Your task to perform on an android device: check battery use Image 0: 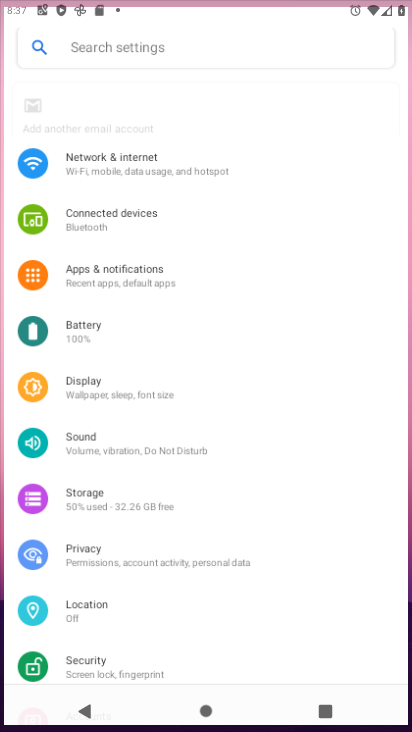
Step 0: drag from (381, 626) to (305, 84)
Your task to perform on an android device: check battery use Image 1: 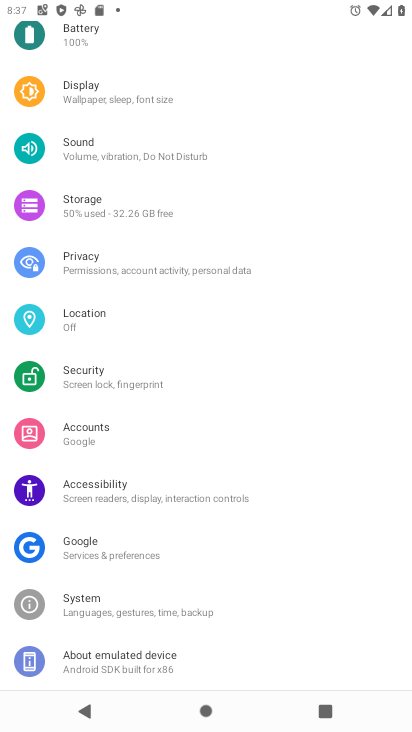
Step 1: press home button
Your task to perform on an android device: check battery use Image 2: 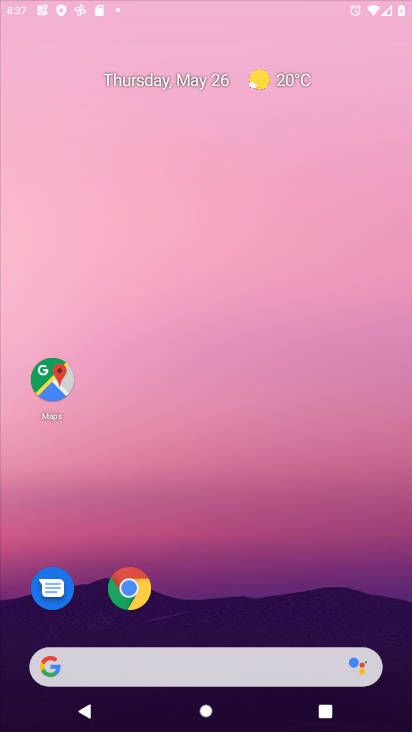
Step 2: drag from (371, 668) to (328, 89)
Your task to perform on an android device: check battery use Image 3: 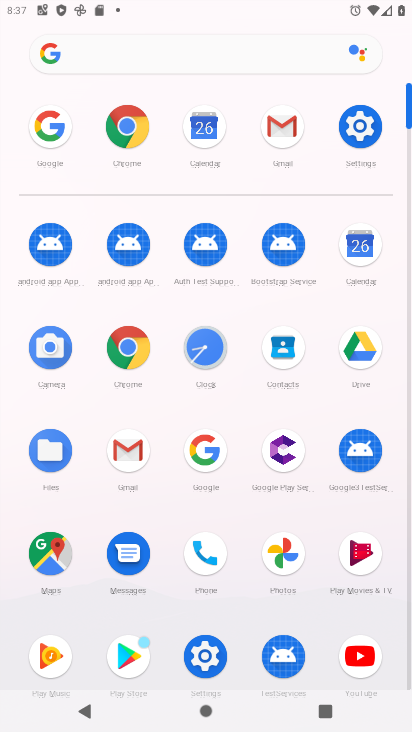
Step 3: click (214, 664)
Your task to perform on an android device: check battery use Image 4: 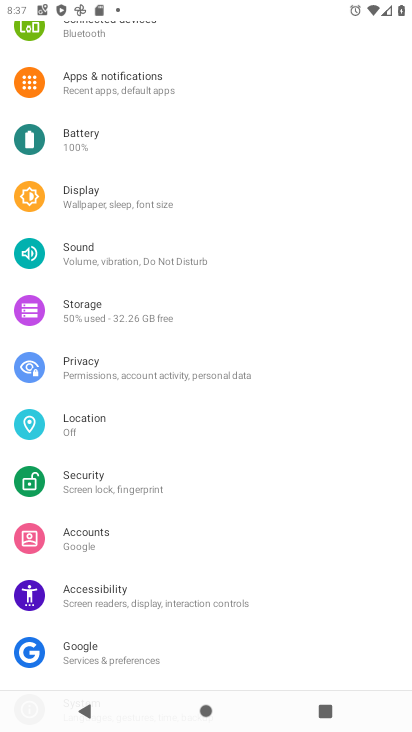
Step 4: drag from (183, 114) to (215, 679)
Your task to perform on an android device: check battery use Image 5: 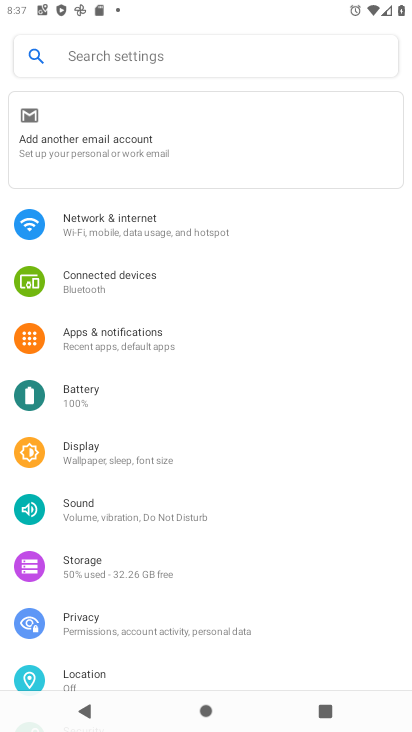
Step 5: click (84, 392)
Your task to perform on an android device: check battery use Image 6: 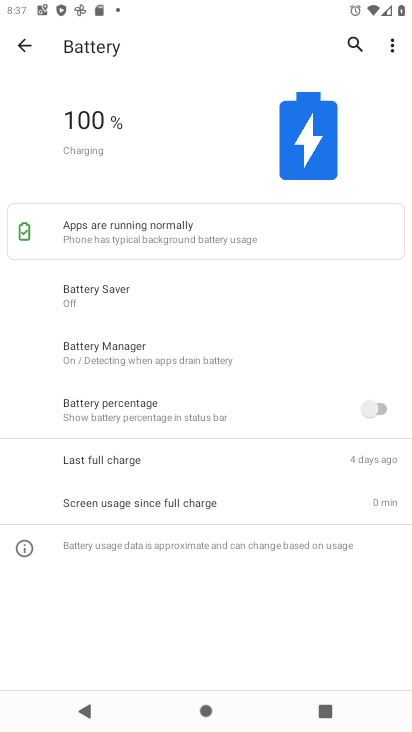
Step 6: task complete